Your task to perform on an android device: open chrome privacy settings Image 0: 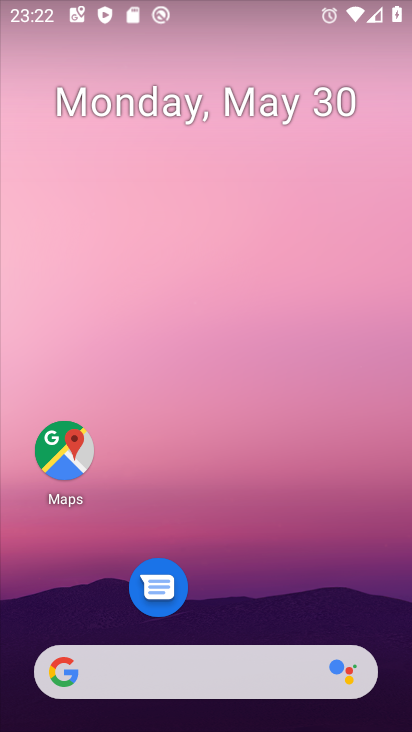
Step 0: drag from (203, 640) to (167, 20)
Your task to perform on an android device: open chrome privacy settings Image 1: 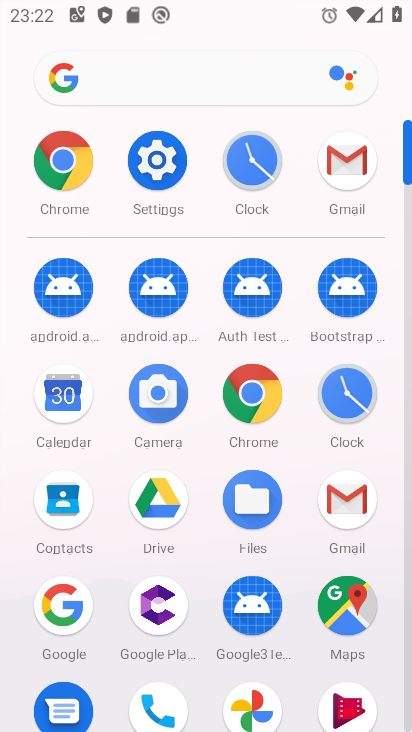
Step 1: click (75, 167)
Your task to perform on an android device: open chrome privacy settings Image 2: 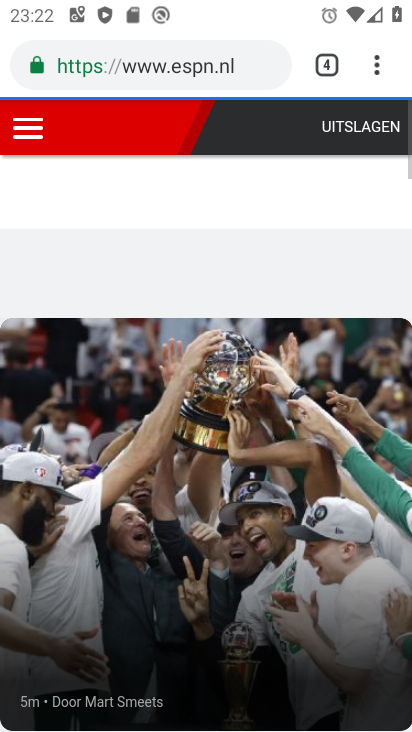
Step 2: click (372, 67)
Your task to perform on an android device: open chrome privacy settings Image 3: 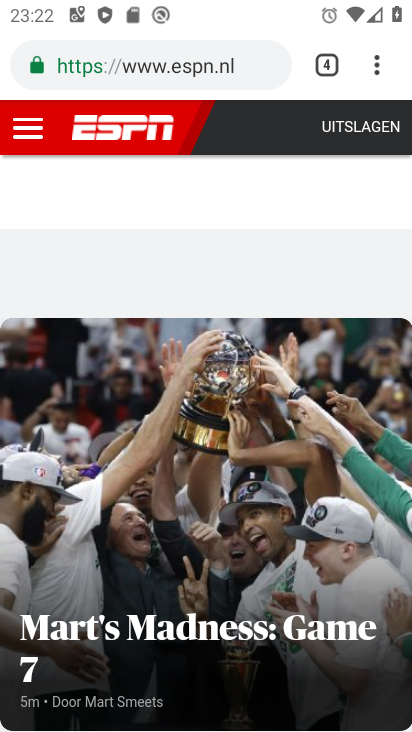
Step 3: drag from (374, 70) to (172, 631)
Your task to perform on an android device: open chrome privacy settings Image 4: 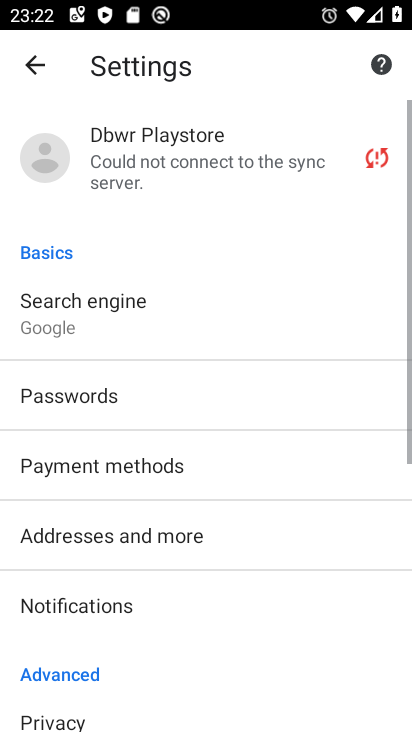
Step 4: drag from (171, 628) to (174, 266)
Your task to perform on an android device: open chrome privacy settings Image 5: 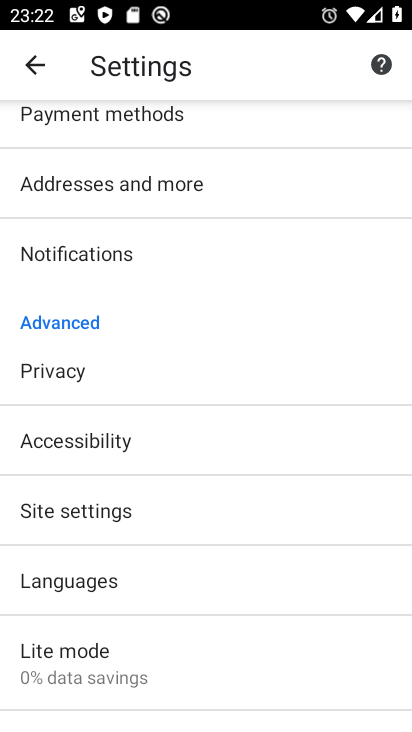
Step 5: click (73, 381)
Your task to perform on an android device: open chrome privacy settings Image 6: 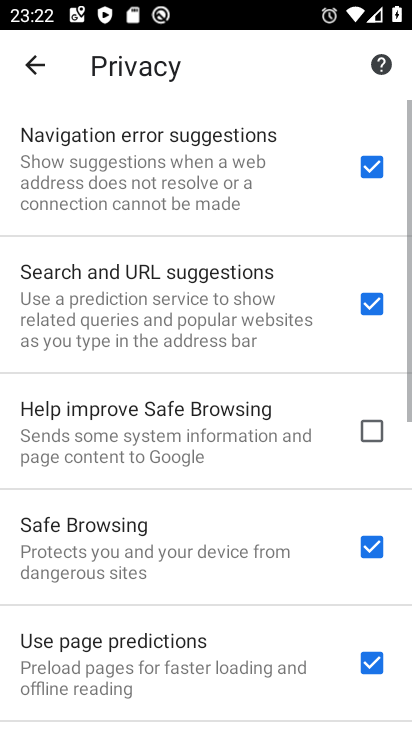
Step 6: task complete